Your task to perform on an android device: check data usage Image 0: 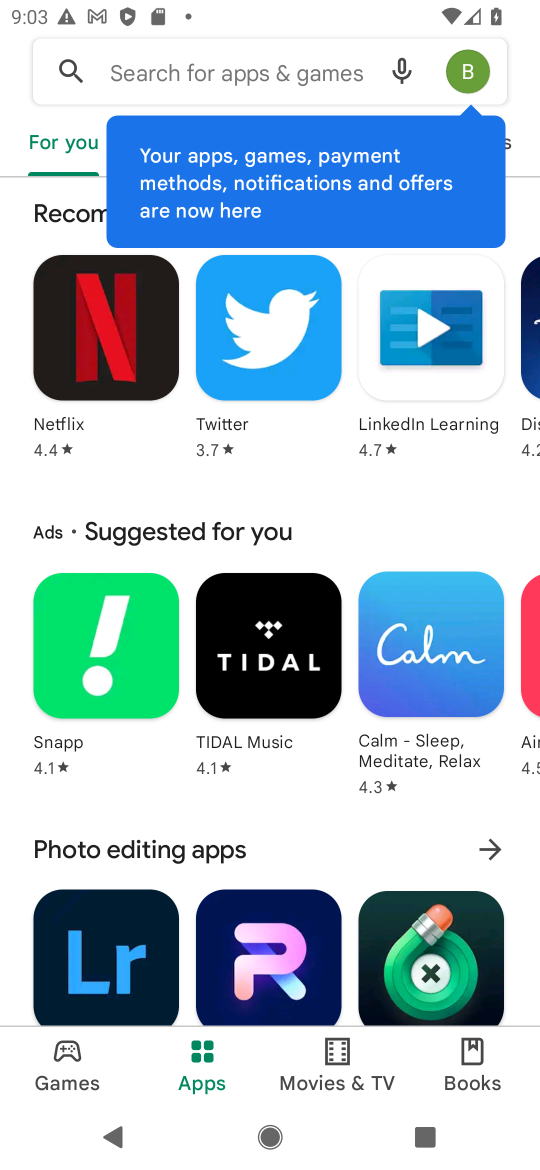
Step 0: press home button
Your task to perform on an android device: check data usage Image 1: 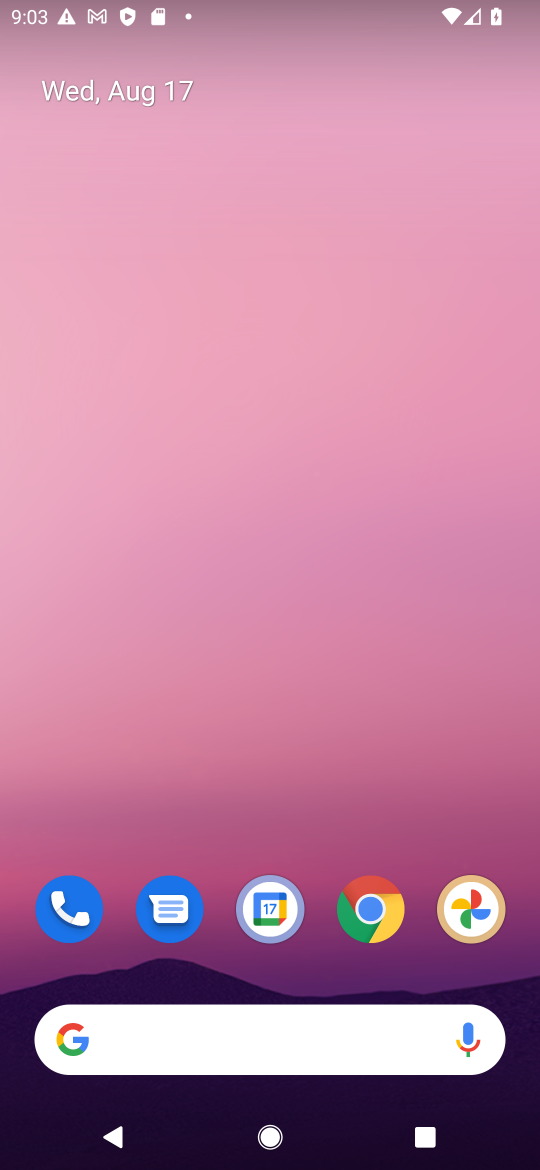
Step 1: drag from (323, 954) to (323, 260)
Your task to perform on an android device: check data usage Image 2: 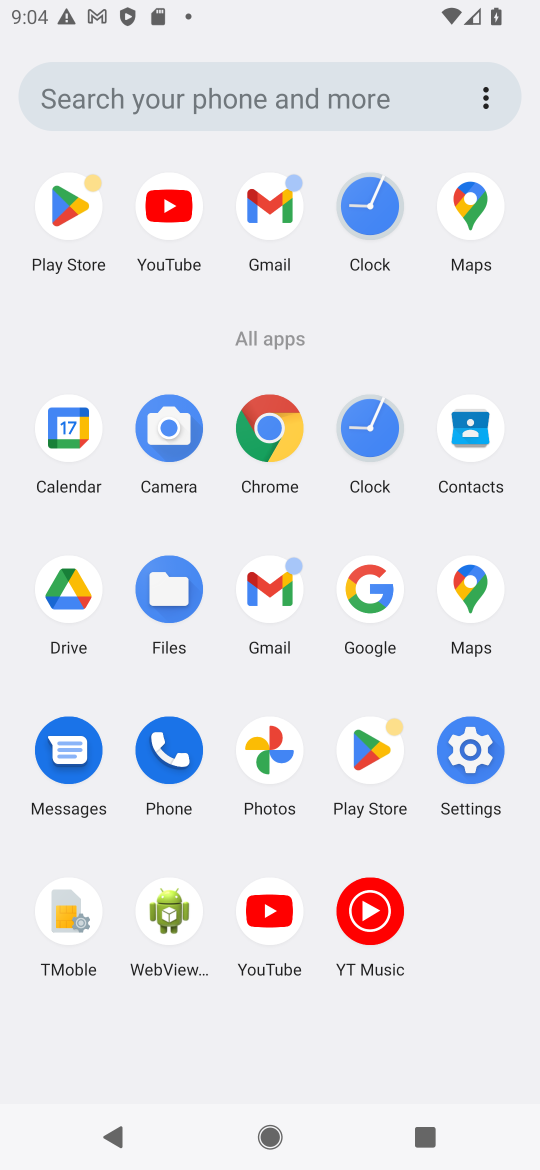
Step 2: drag from (277, 5) to (331, 1037)
Your task to perform on an android device: check data usage Image 3: 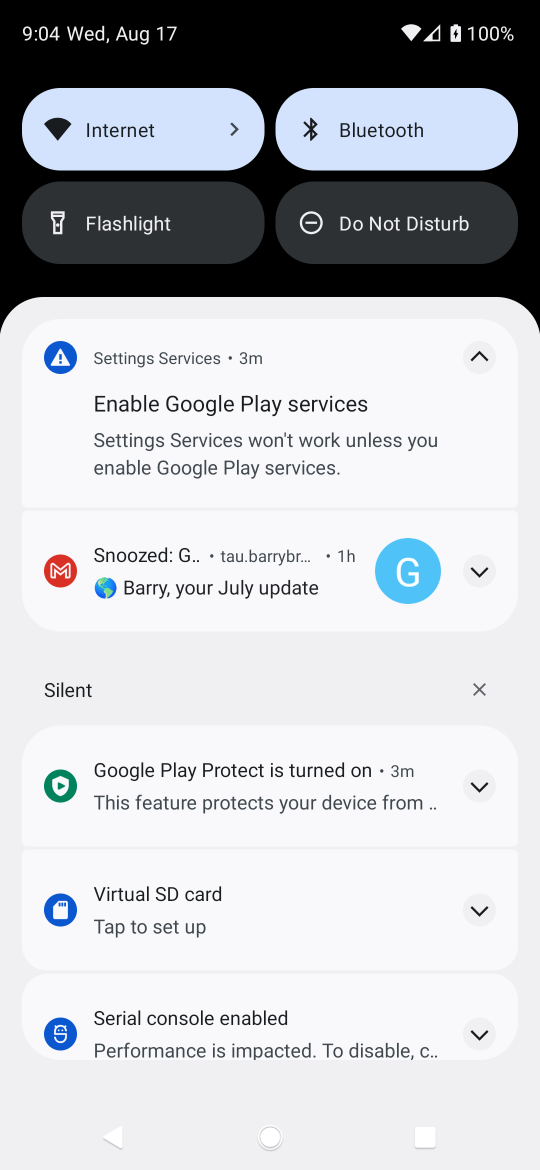
Step 3: click (186, 124)
Your task to perform on an android device: check data usage Image 4: 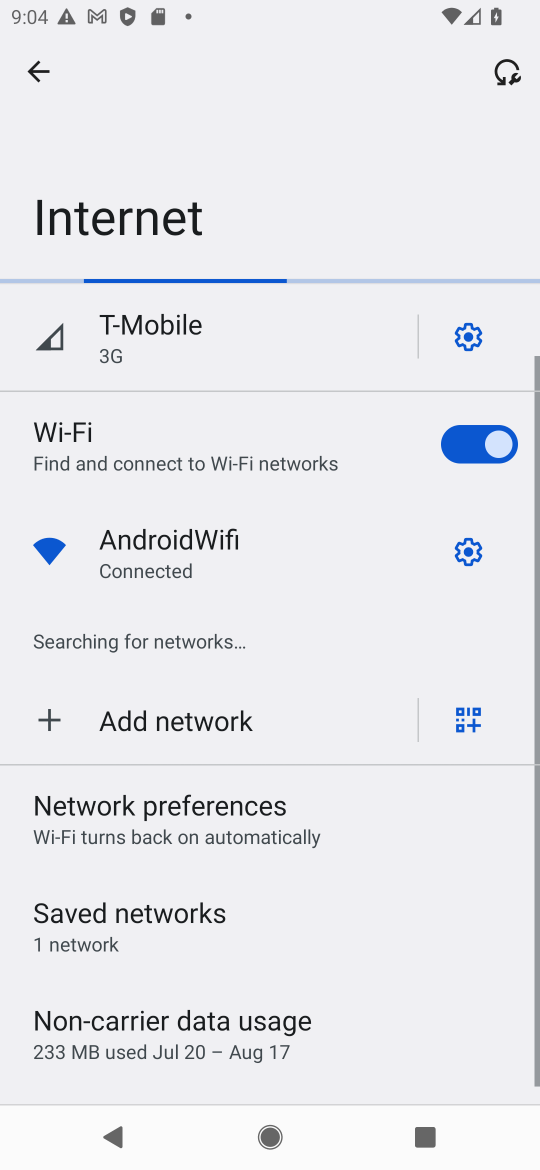
Step 4: task complete